Your task to perform on an android device: change your default location settings in chrome Image 0: 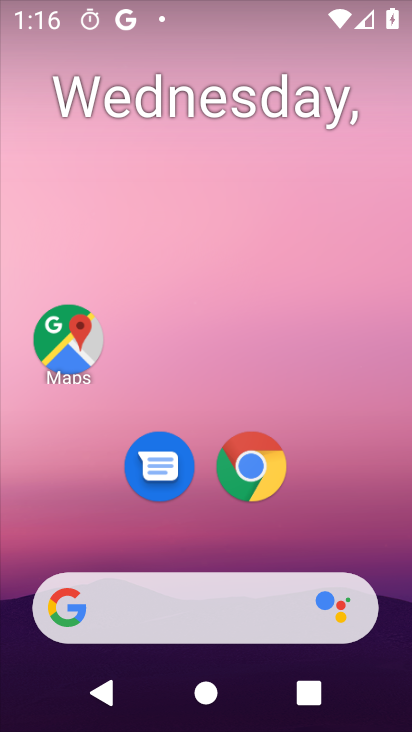
Step 0: drag from (337, 529) to (296, 236)
Your task to perform on an android device: change your default location settings in chrome Image 1: 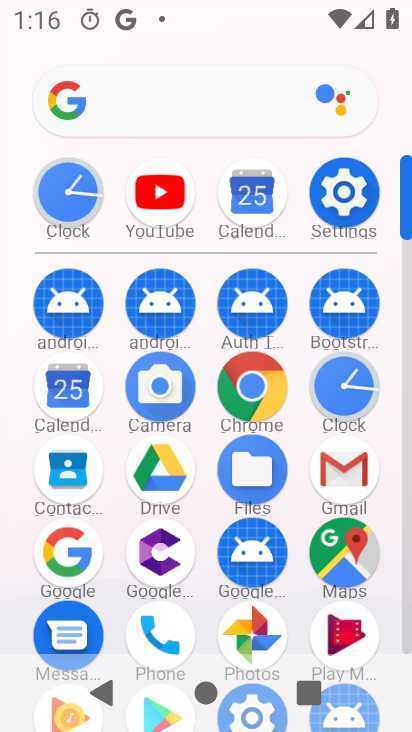
Step 1: click (260, 394)
Your task to perform on an android device: change your default location settings in chrome Image 2: 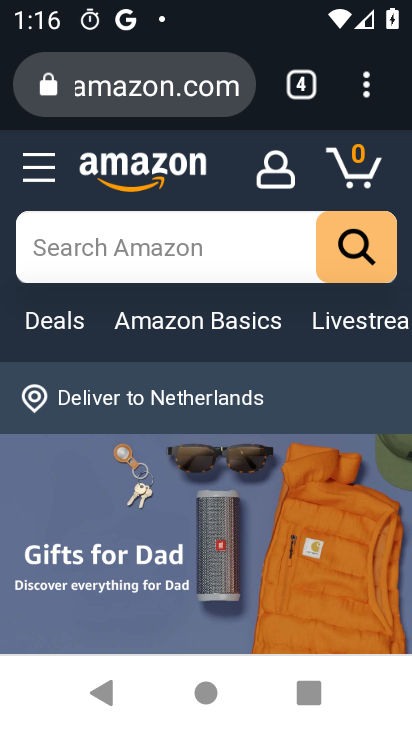
Step 2: click (371, 91)
Your task to perform on an android device: change your default location settings in chrome Image 3: 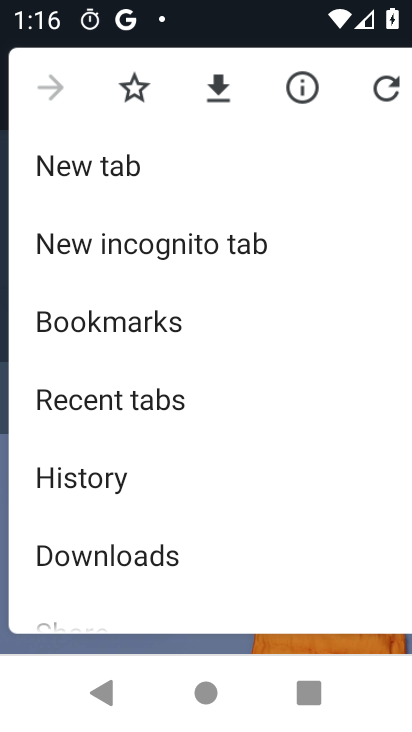
Step 3: drag from (246, 505) to (239, 192)
Your task to perform on an android device: change your default location settings in chrome Image 4: 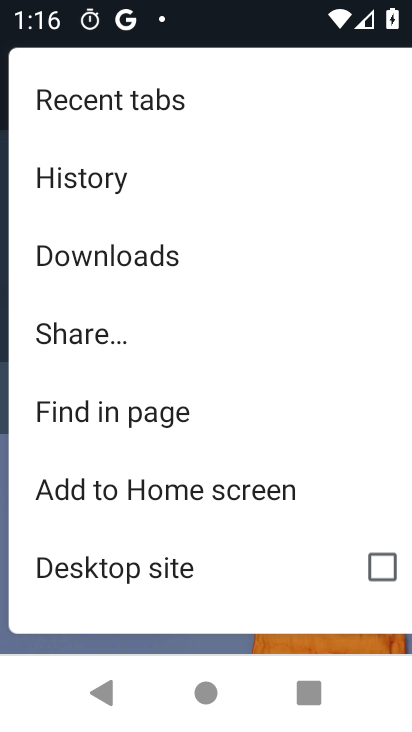
Step 4: drag from (195, 563) to (182, 213)
Your task to perform on an android device: change your default location settings in chrome Image 5: 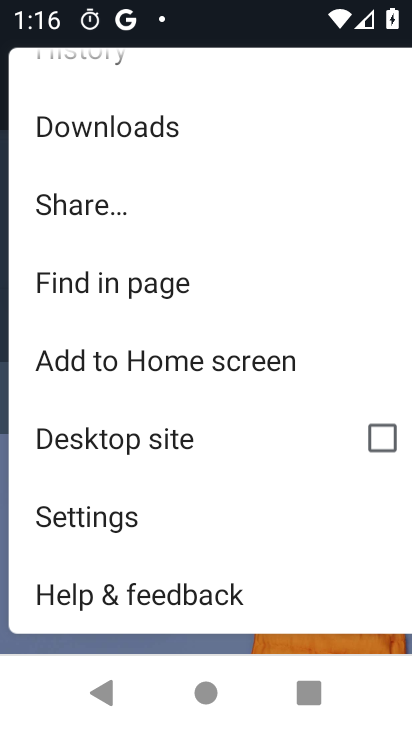
Step 5: click (119, 522)
Your task to perform on an android device: change your default location settings in chrome Image 6: 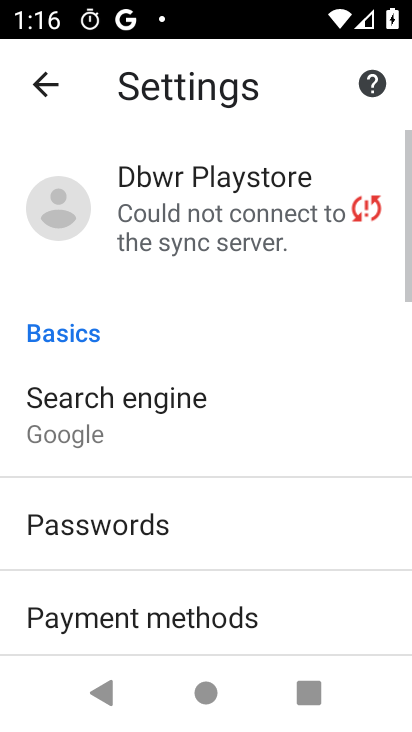
Step 6: drag from (188, 634) to (179, 380)
Your task to perform on an android device: change your default location settings in chrome Image 7: 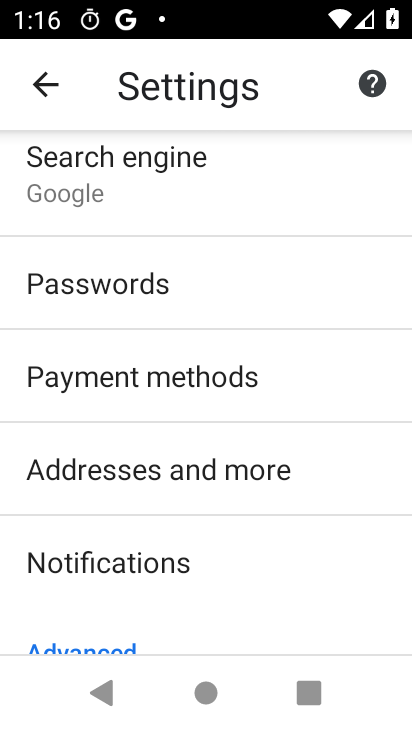
Step 7: drag from (255, 577) to (255, 242)
Your task to perform on an android device: change your default location settings in chrome Image 8: 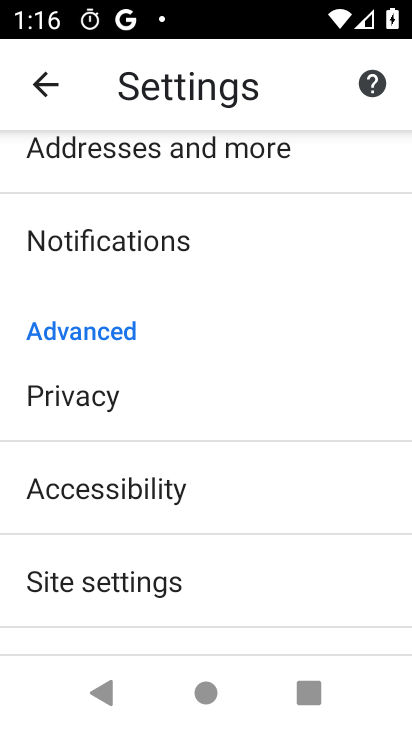
Step 8: drag from (265, 548) to (257, 267)
Your task to perform on an android device: change your default location settings in chrome Image 9: 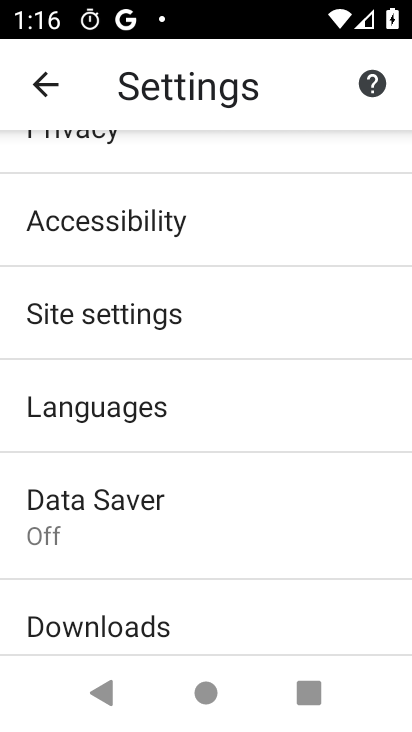
Step 9: drag from (256, 553) to (238, 258)
Your task to perform on an android device: change your default location settings in chrome Image 10: 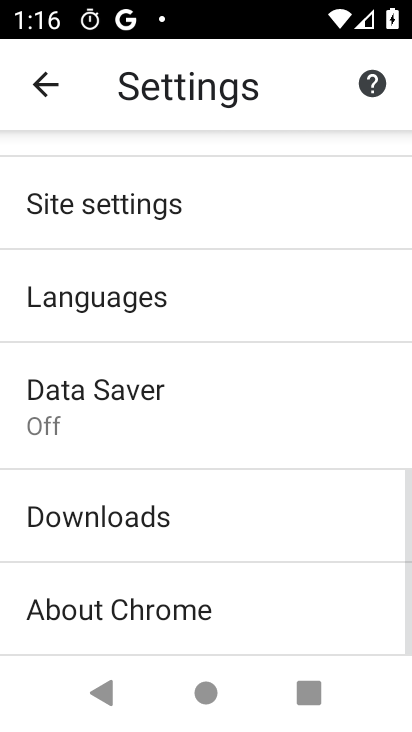
Step 10: drag from (230, 248) to (249, 553)
Your task to perform on an android device: change your default location settings in chrome Image 11: 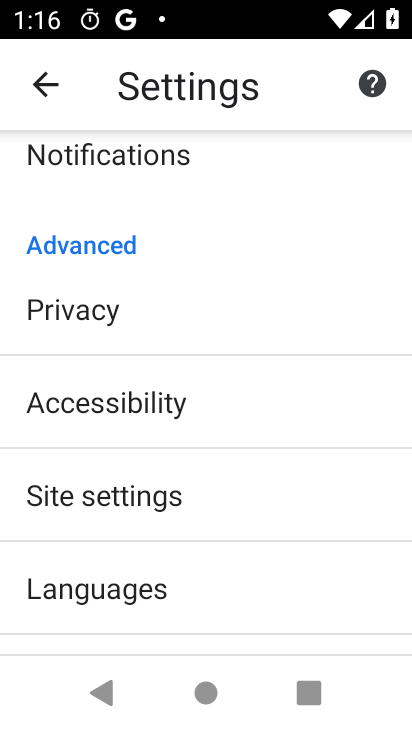
Step 11: click (153, 320)
Your task to perform on an android device: change your default location settings in chrome Image 12: 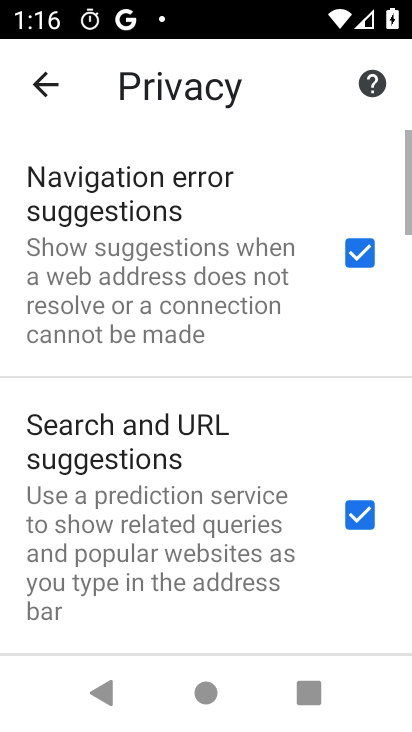
Step 12: drag from (152, 549) to (121, 204)
Your task to perform on an android device: change your default location settings in chrome Image 13: 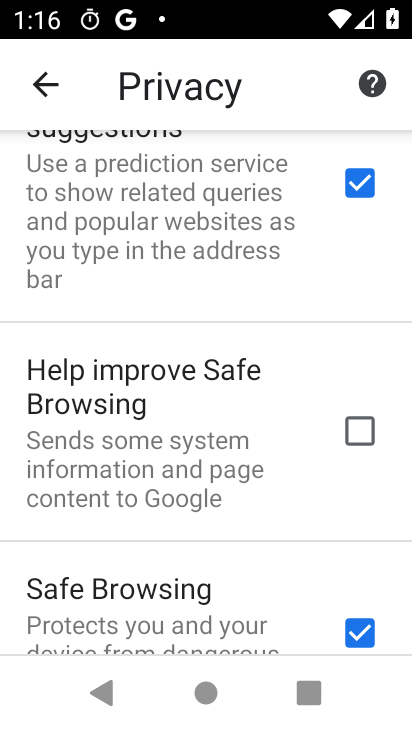
Step 13: drag from (181, 533) to (165, 215)
Your task to perform on an android device: change your default location settings in chrome Image 14: 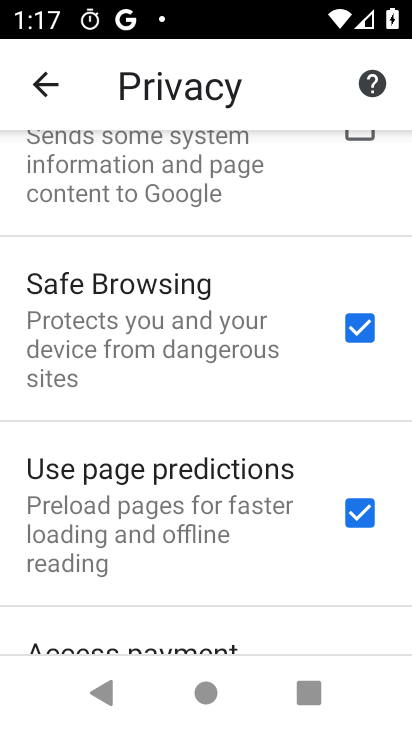
Step 14: drag from (184, 566) to (180, 176)
Your task to perform on an android device: change your default location settings in chrome Image 15: 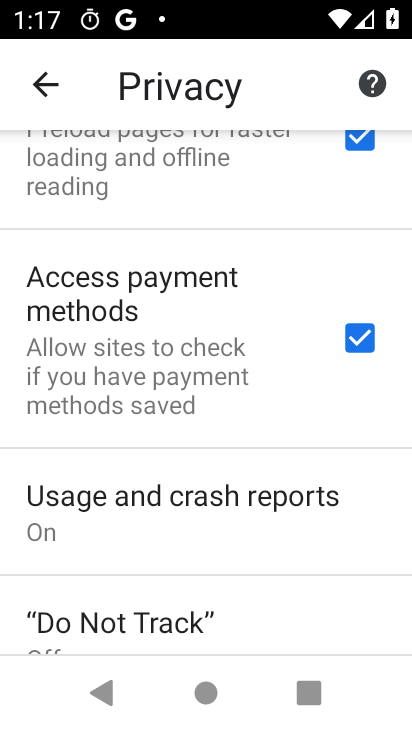
Step 15: drag from (235, 501) to (232, 158)
Your task to perform on an android device: change your default location settings in chrome Image 16: 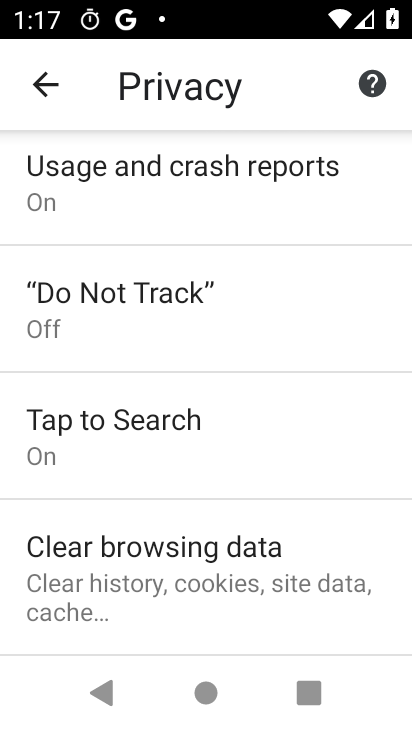
Step 16: drag from (240, 599) to (225, 305)
Your task to perform on an android device: change your default location settings in chrome Image 17: 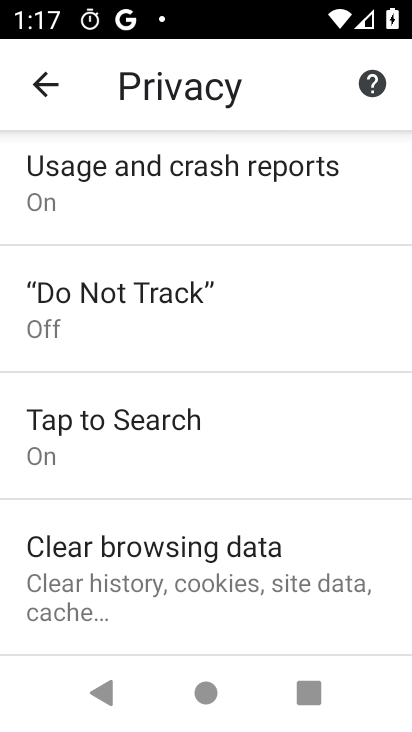
Step 17: press back button
Your task to perform on an android device: change your default location settings in chrome Image 18: 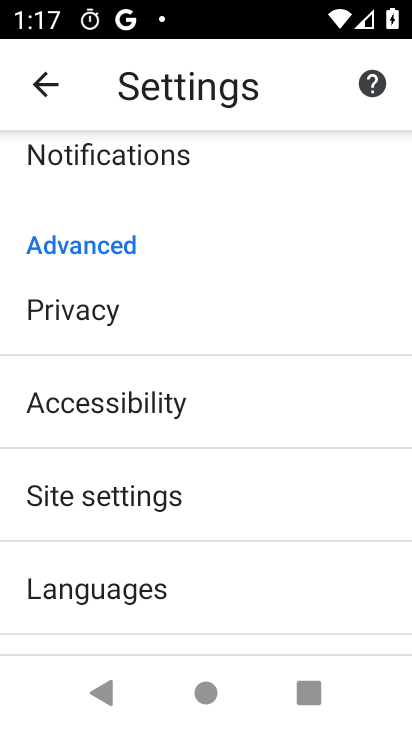
Step 18: click (63, 391)
Your task to perform on an android device: change your default location settings in chrome Image 19: 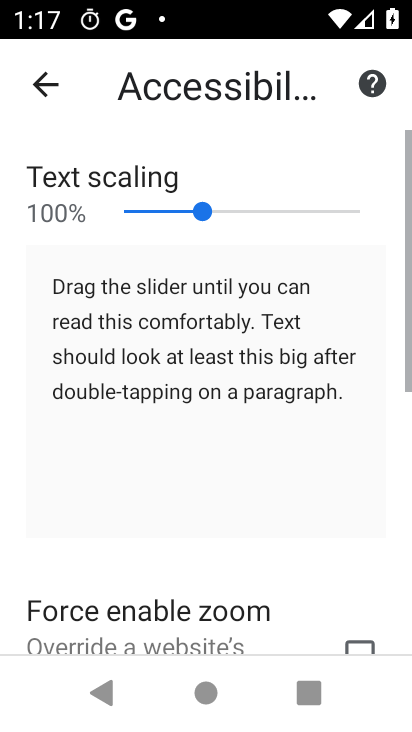
Step 19: drag from (133, 525) to (125, 214)
Your task to perform on an android device: change your default location settings in chrome Image 20: 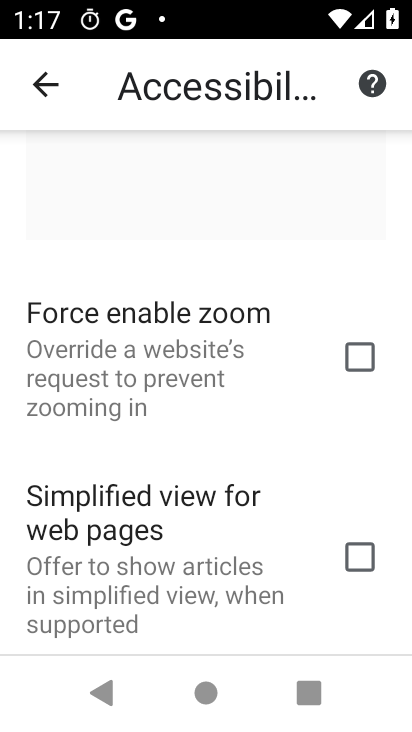
Step 20: drag from (101, 491) to (100, 237)
Your task to perform on an android device: change your default location settings in chrome Image 21: 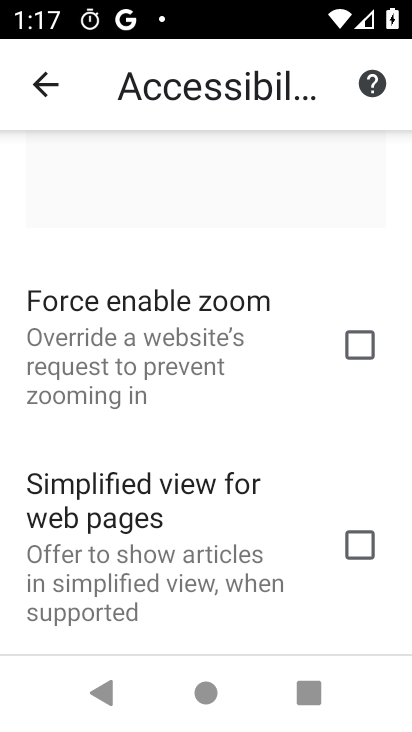
Step 21: press back button
Your task to perform on an android device: change your default location settings in chrome Image 22: 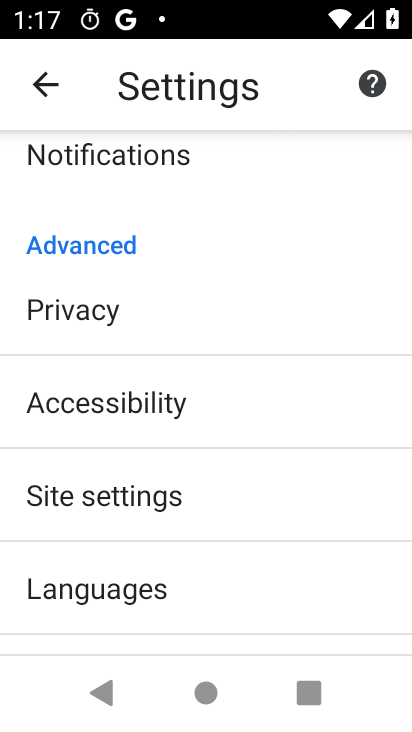
Step 22: click (305, 480)
Your task to perform on an android device: change your default location settings in chrome Image 23: 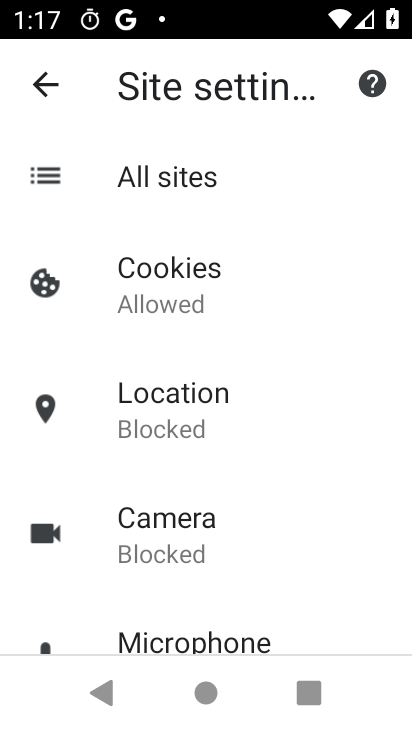
Step 23: click (128, 380)
Your task to perform on an android device: change your default location settings in chrome Image 24: 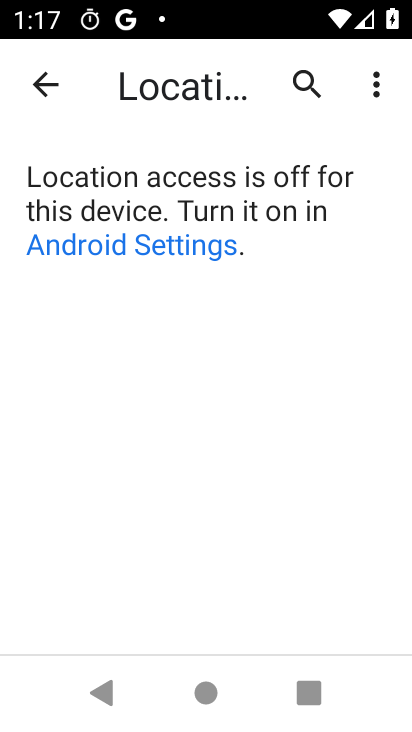
Step 24: task complete